Your task to perform on an android device: delete browsing data in the chrome app Image 0: 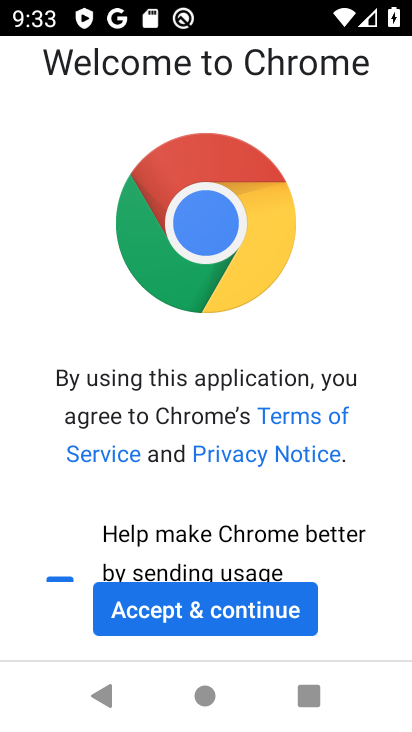
Step 0: click (300, 601)
Your task to perform on an android device: delete browsing data in the chrome app Image 1: 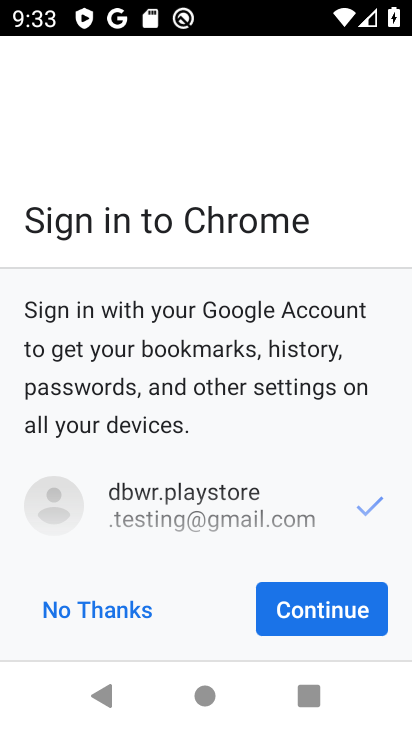
Step 1: click (300, 601)
Your task to perform on an android device: delete browsing data in the chrome app Image 2: 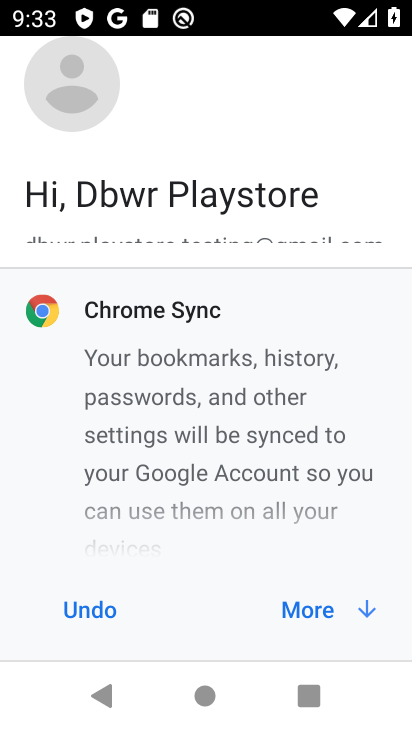
Step 2: click (305, 614)
Your task to perform on an android device: delete browsing data in the chrome app Image 3: 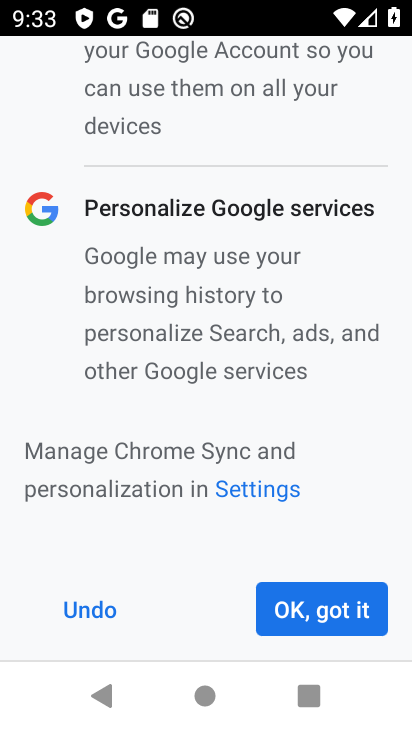
Step 3: click (297, 612)
Your task to perform on an android device: delete browsing data in the chrome app Image 4: 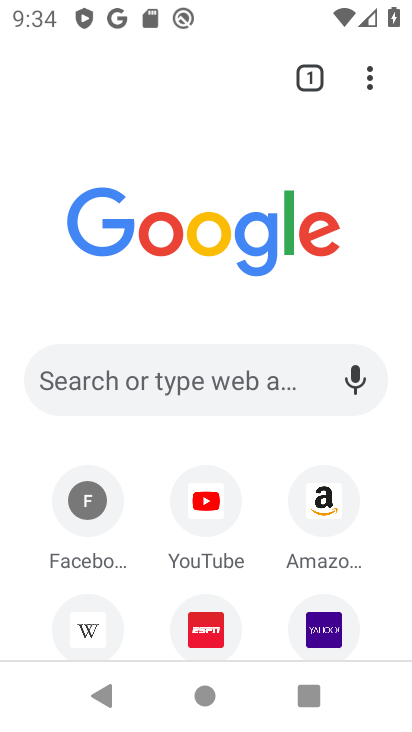
Step 4: click (365, 76)
Your task to perform on an android device: delete browsing data in the chrome app Image 5: 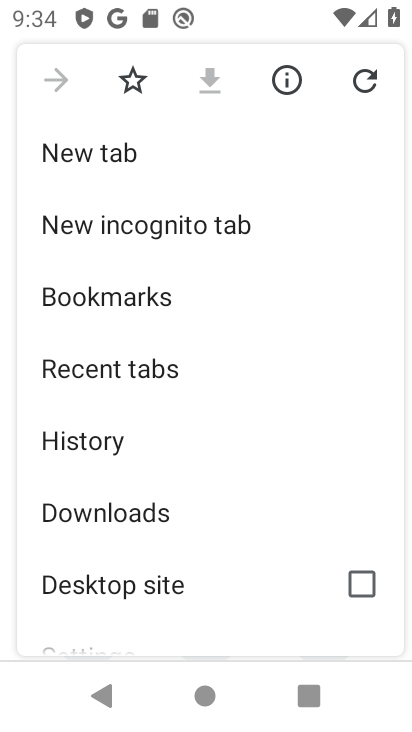
Step 5: click (65, 438)
Your task to perform on an android device: delete browsing data in the chrome app Image 6: 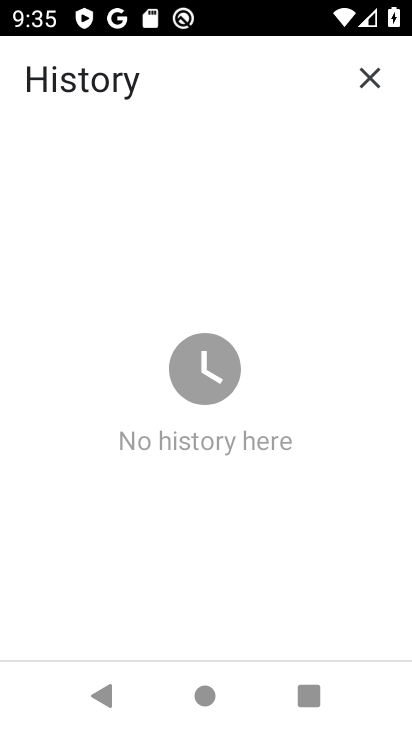
Step 6: task complete